Your task to perform on an android device: What's the weather going to be tomorrow? Image 0: 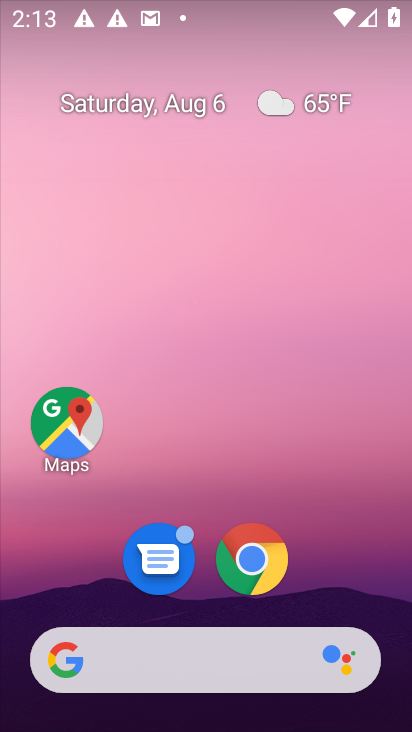
Step 0: drag from (208, 470) to (184, 154)
Your task to perform on an android device: What's the weather going to be tomorrow? Image 1: 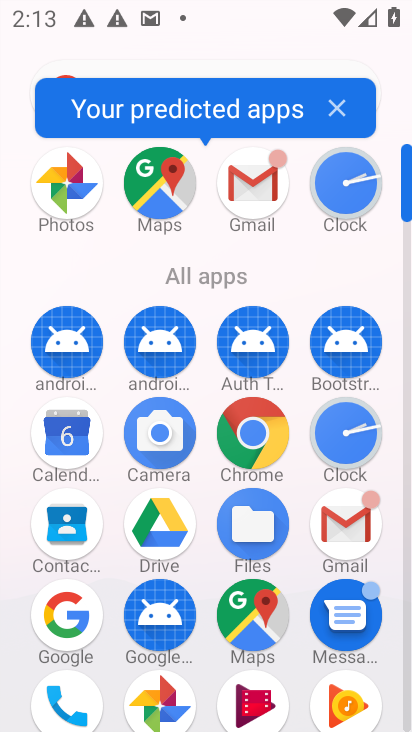
Step 1: click (78, 618)
Your task to perform on an android device: What's the weather going to be tomorrow? Image 2: 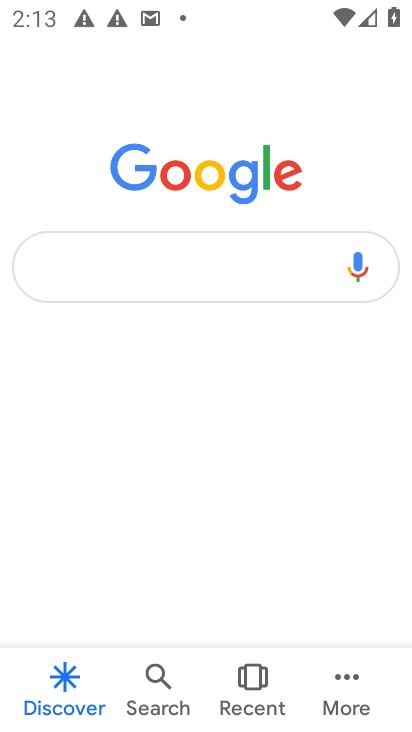
Step 2: click (165, 253)
Your task to perform on an android device: What's the weather going to be tomorrow? Image 3: 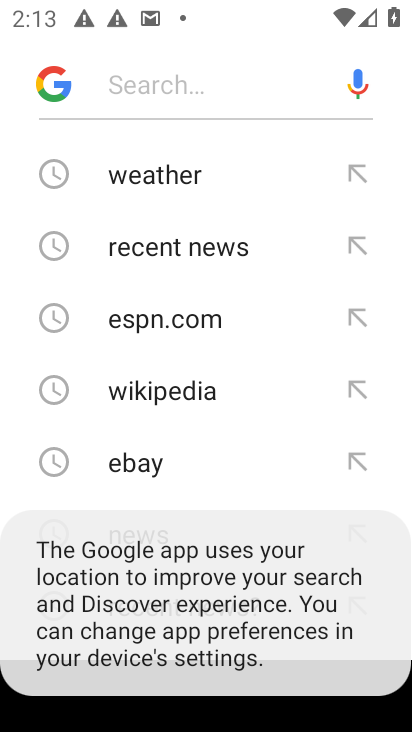
Step 3: click (162, 173)
Your task to perform on an android device: What's the weather going to be tomorrow? Image 4: 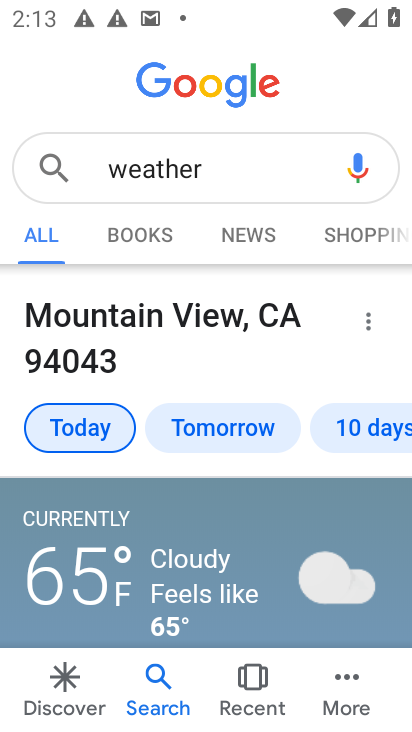
Step 4: click (227, 420)
Your task to perform on an android device: What's the weather going to be tomorrow? Image 5: 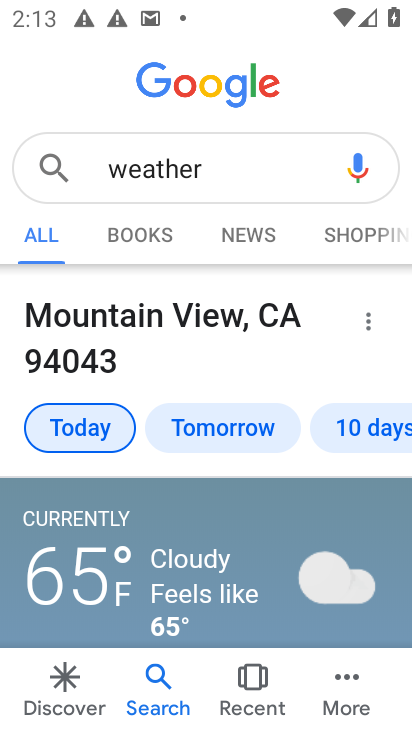
Step 5: click (227, 420)
Your task to perform on an android device: What's the weather going to be tomorrow? Image 6: 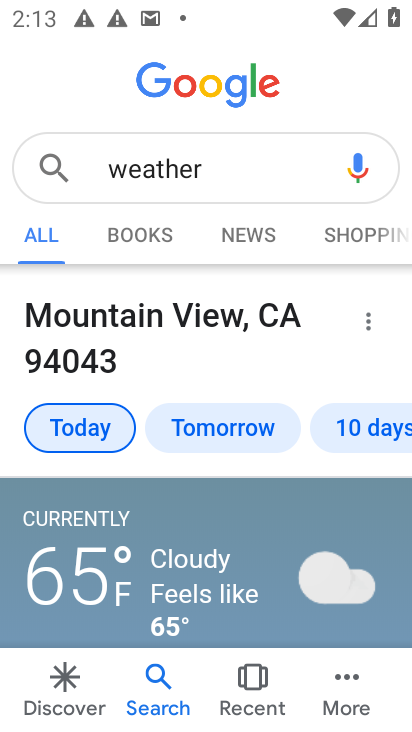
Step 6: click (221, 418)
Your task to perform on an android device: What's the weather going to be tomorrow? Image 7: 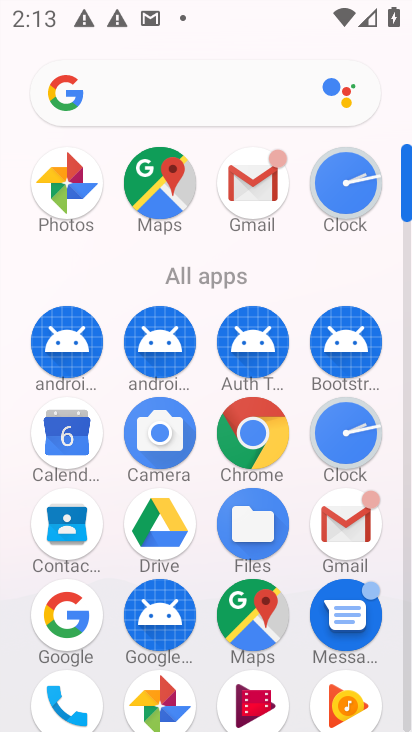
Step 7: click (50, 634)
Your task to perform on an android device: What's the weather going to be tomorrow? Image 8: 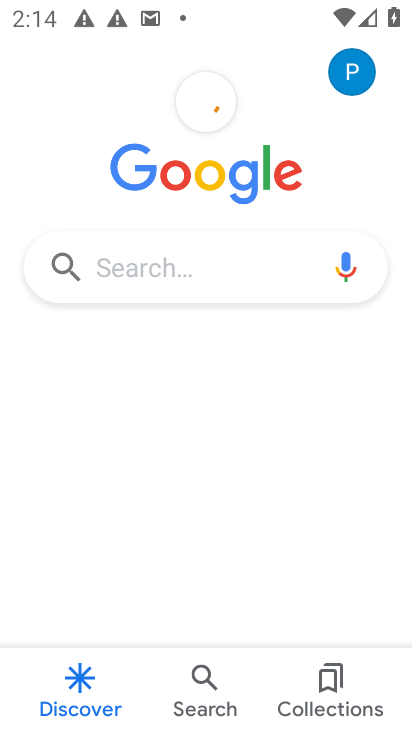
Step 8: click (197, 274)
Your task to perform on an android device: What's the weather going to be tomorrow? Image 9: 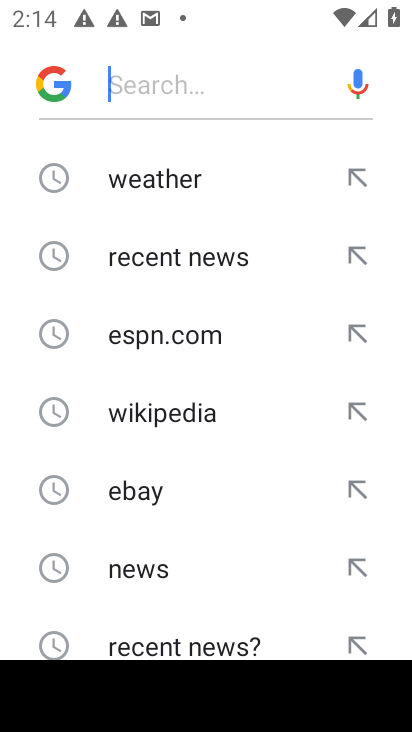
Step 9: click (176, 175)
Your task to perform on an android device: What's the weather going to be tomorrow? Image 10: 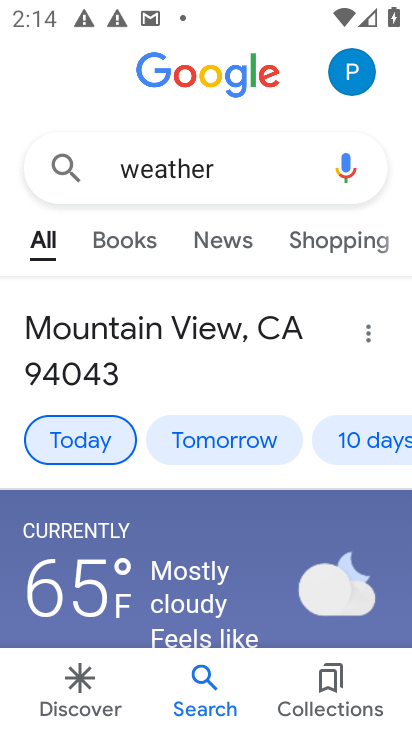
Step 10: click (198, 423)
Your task to perform on an android device: What's the weather going to be tomorrow? Image 11: 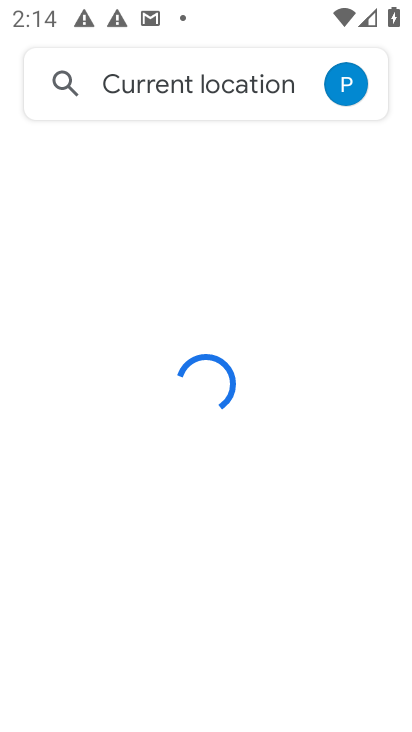
Step 11: task complete